Your task to perform on an android device: Open sound settings Image 0: 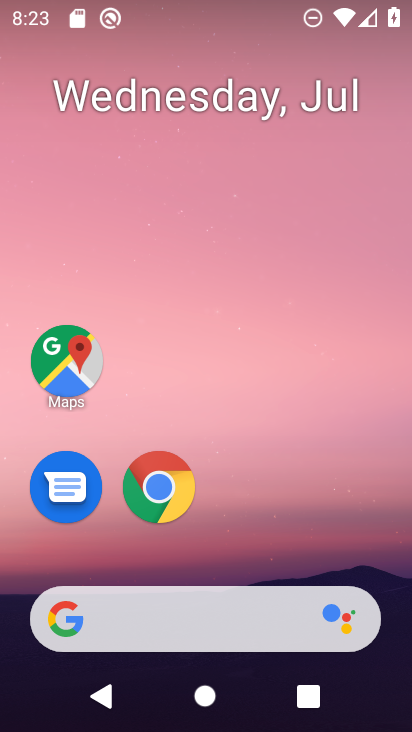
Step 0: drag from (368, 534) to (381, 59)
Your task to perform on an android device: Open sound settings Image 1: 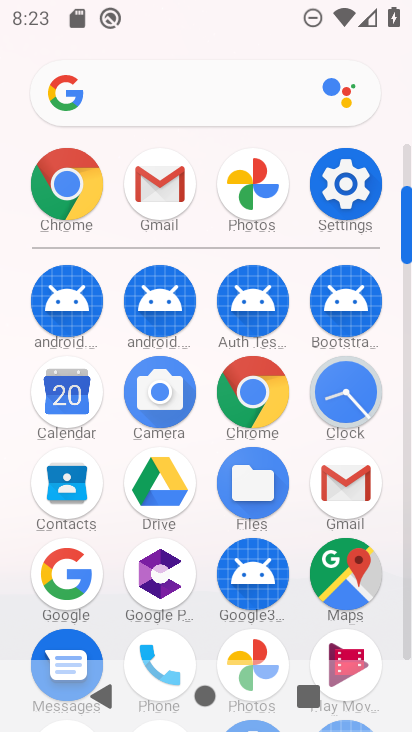
Step 1: click (352, 191)
Your task to perform on an android device: Open sound settings Image 2: 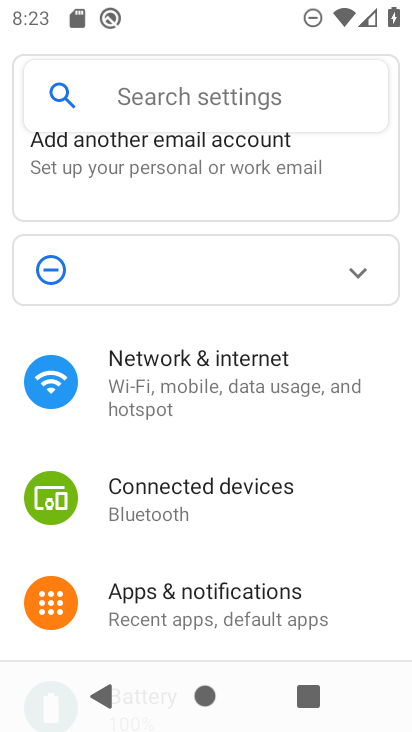
Step 2: drag from (332, 519) to (333, 429)
Your task to perform on an android device: Open sound settings Image 3: 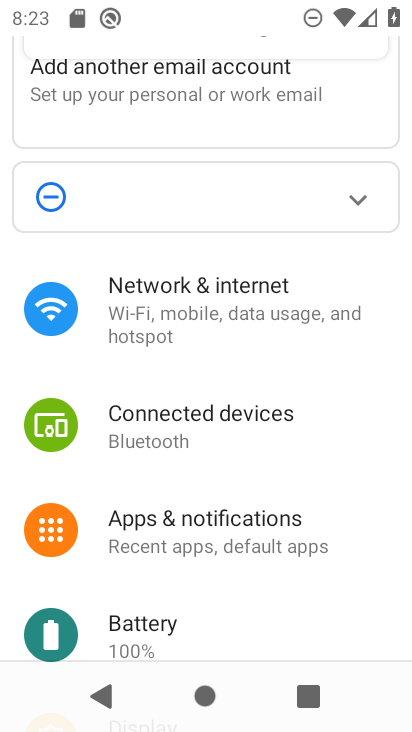
Step 3: drag from (351, 541) to (339, 442)
Your task to perform on an android device: Open sound settings Image 4: 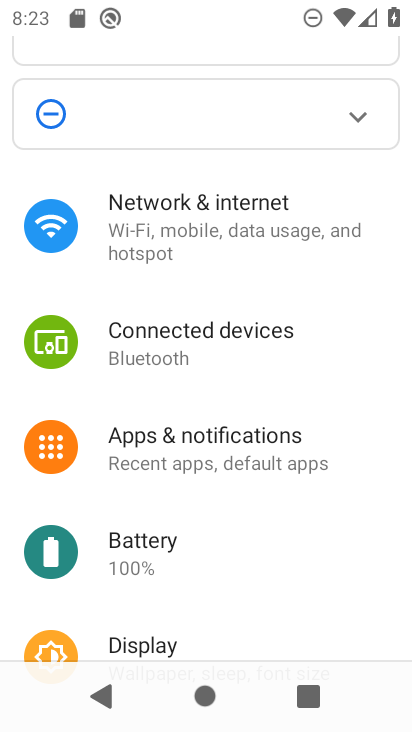
Step 4: drag from (350, 537) to (363, 426)
Your task to perform on an android device: Open sound settings Image 5: 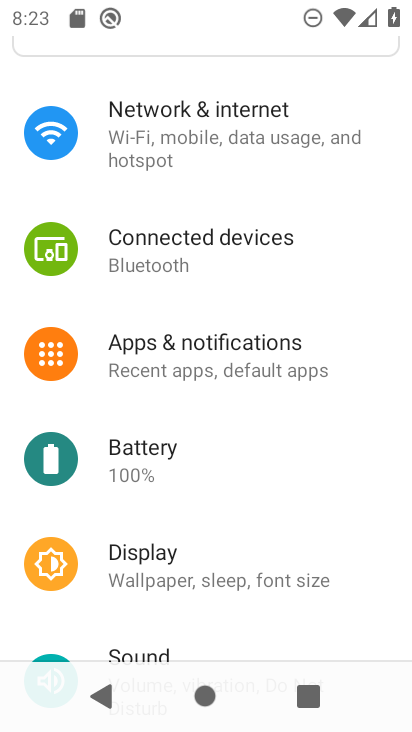
Step 5: drag from (366, 505) to (390, 247)
Your task to perform on an android device: Open sound settings Image 6: 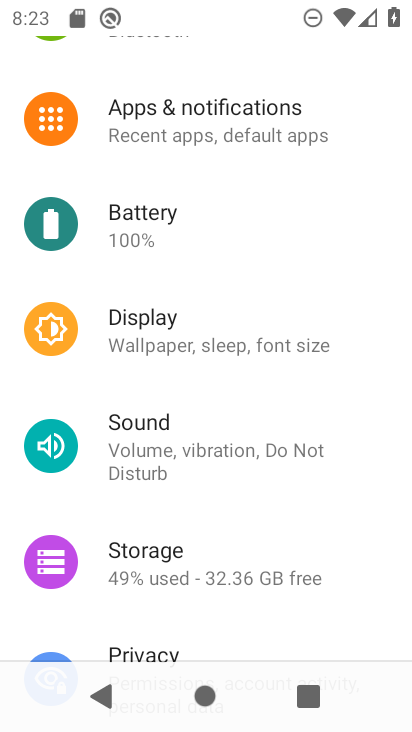
Step 6: drag from (362, 501) to (358, 323)
Your task to perform on an android device: Open sound settings Image 7: 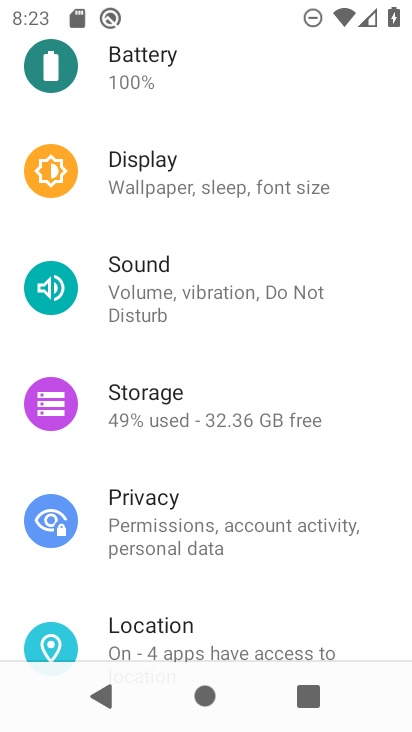
Step 7: drag from (336, 567) to (358, 410)
Your task to perform on an android device: Open sound settings Image 8: 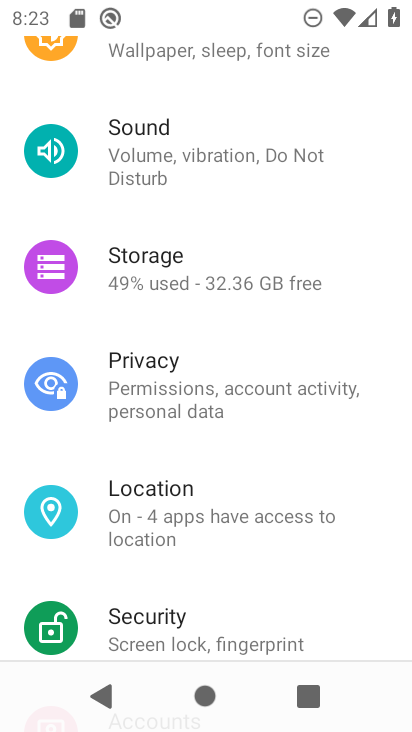
Step 8: drag from (369, 221) to (384, 333)
Your task to perform on an android device: Open sound settings Image 9: 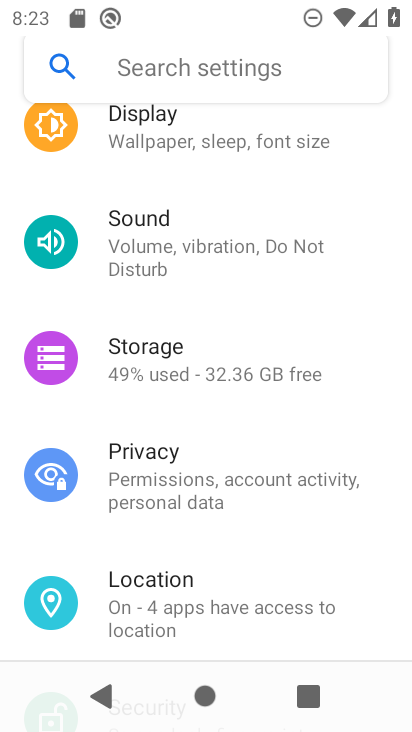
Step 9: click (320, 242)
Your task to perform on an android device: Open sound settings Image 10: 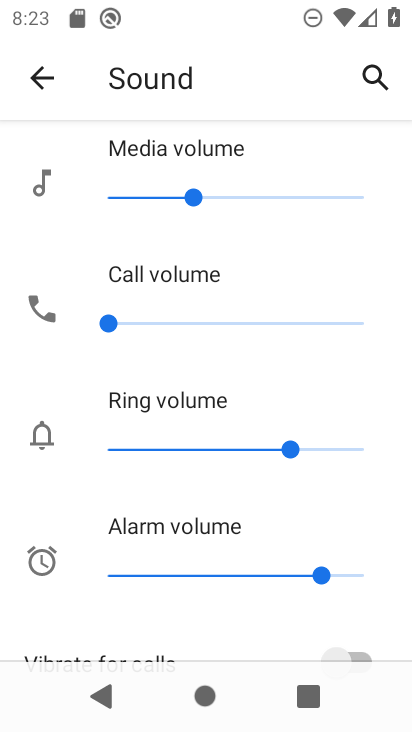
Step 10: task complete